Your task to perform on an android device: What's on my calendar today? Image 0: 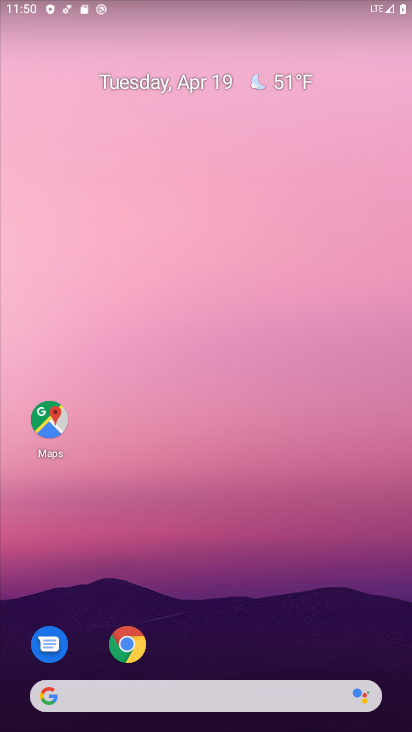
Step 0: drag from (214, 724) to (196, 122)
Your task to perform on an android device: What's on my calendar today? Image 1: 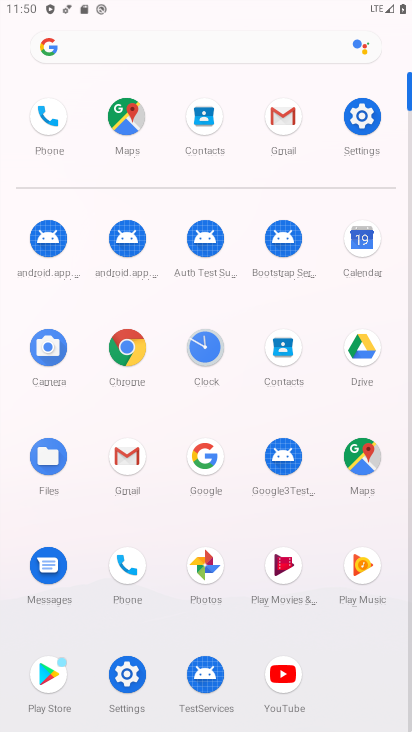
Step 1: click (357, 248)
Your task to perform on an android device: What's on my calendar today? Image 2: 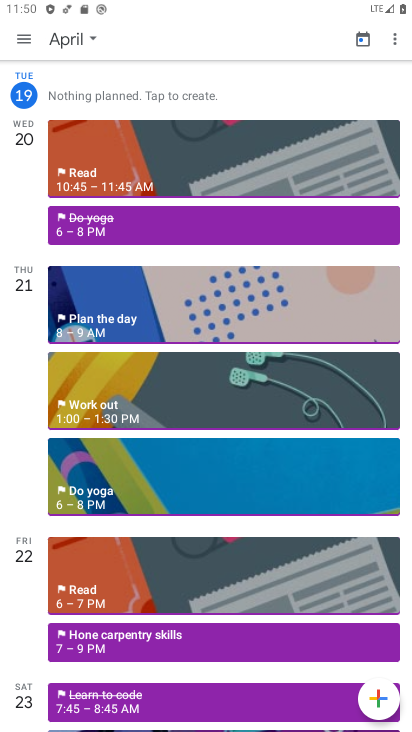
Step 2: click (65, 38)
Your task to perform on an android device: What's on my calendar today? Image 3: 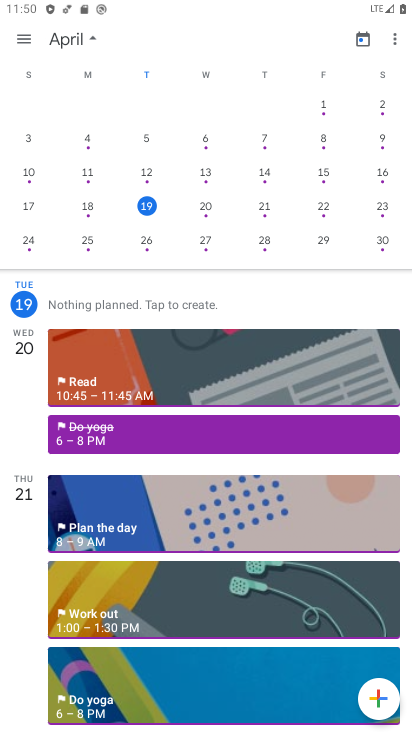
Step 3: click (146, 199)
Your task to perform on an android device: What's on my calendar today? Image 4: 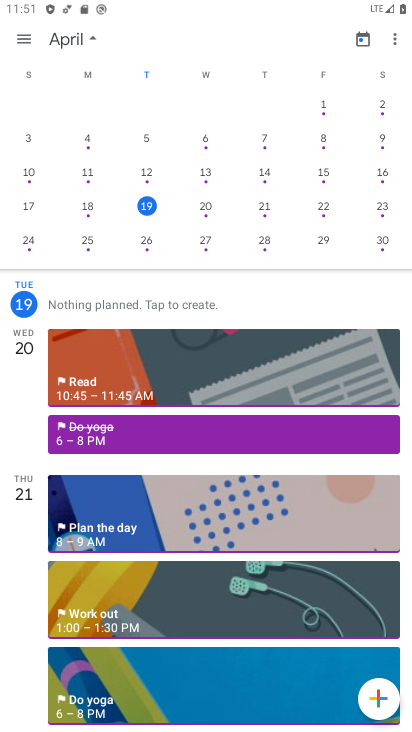
Step 4: task complete